Your task to perform on an android device: Toggle the flashlight Image 0: 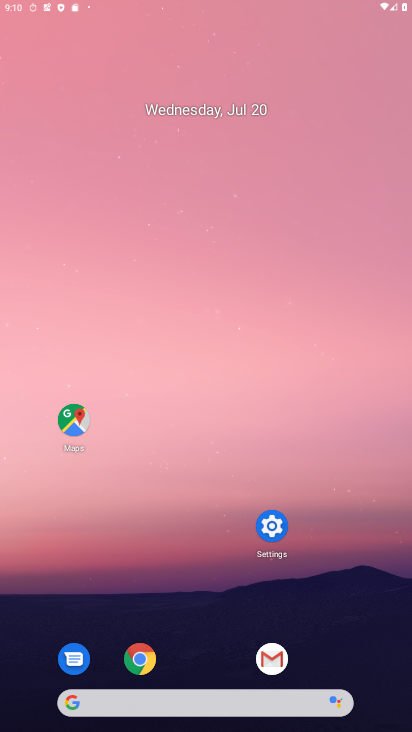
Step 0: press home button
Your task to perform on an android device: Toggle the flashlight Image 1: 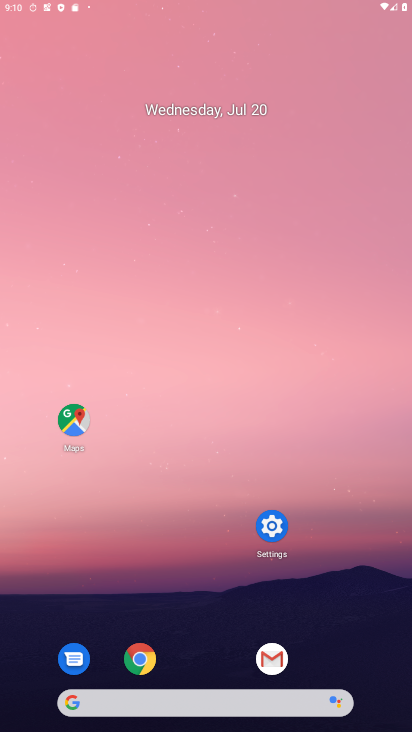
Step 1: click (131, 658)
Your task to perform on an android device: Toggle the flashlight Image 2: 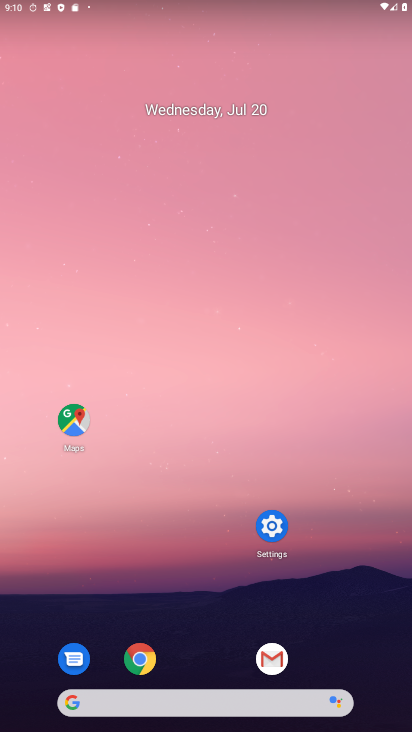
Step 2: click (275, 543)
Your task to perform on an android device: Toggle the flashlight Image 3: 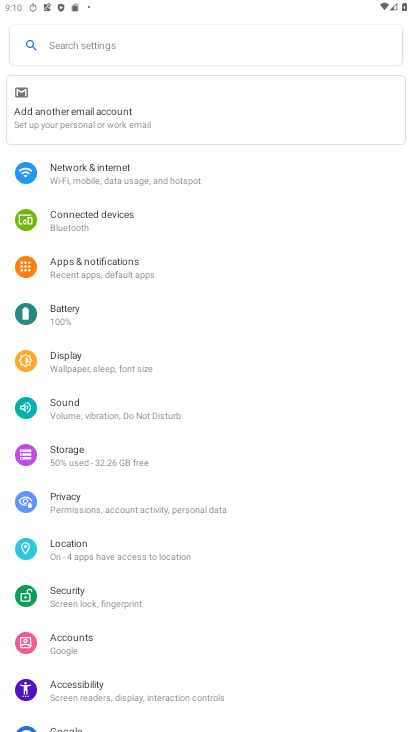
Step 3: click (105, 48)
Your task to perform on an android device: Toggle the flashlight Image 4: 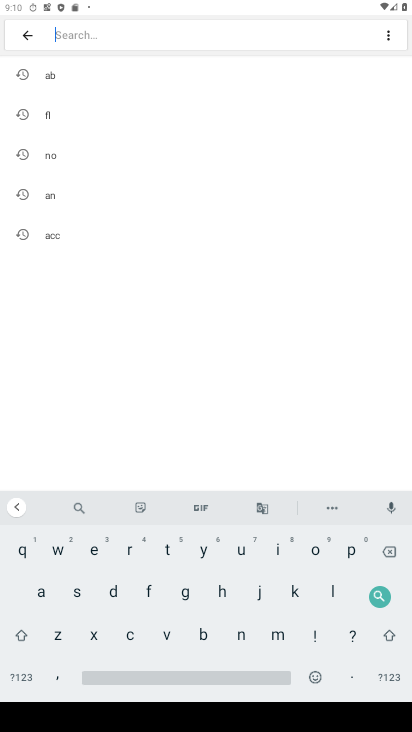
Step 4: click (149, 587)
Your task to perform on an android device: Toggle the flashlight Image 5: 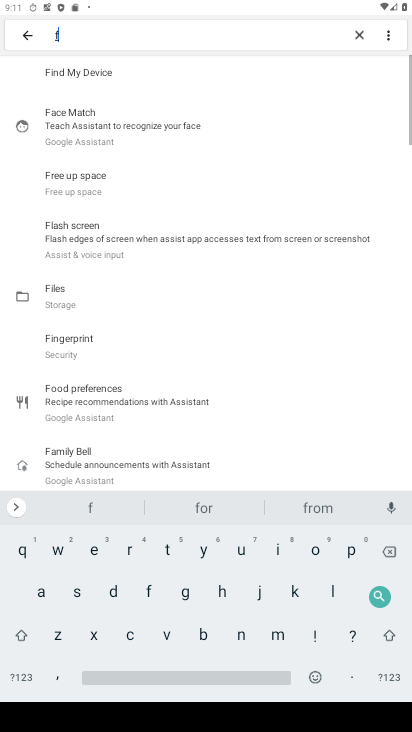
Step 5: click (333, 590)
Your task to perform on an android device: Toggle the flashlight Image 6: 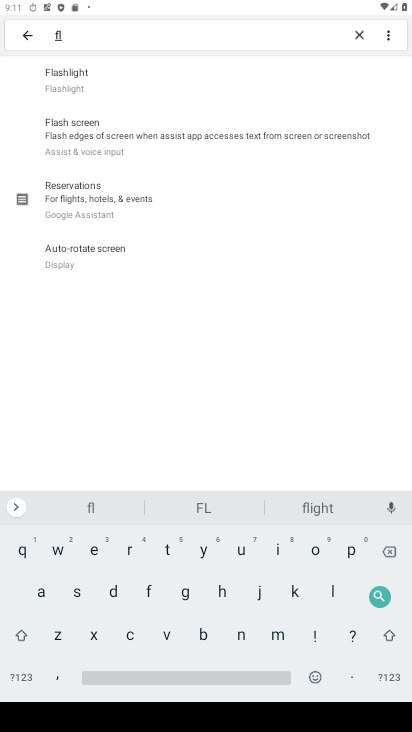
Step 6: click (134, 73)
Your task to perform on an android device: Toggle the flashlight Image 7: 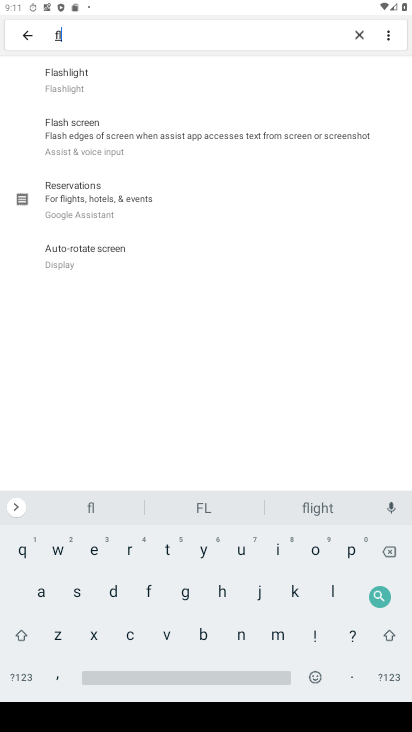
Step 7: task complete